Your task to perform on an android device: Go to accessibility settings Image 0: 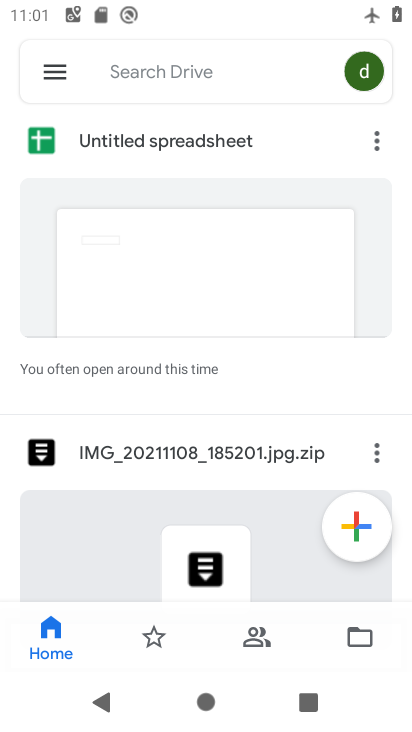
Step 0: press home button
Your task to perform on an android device: Go to accessibility settings Image 1: 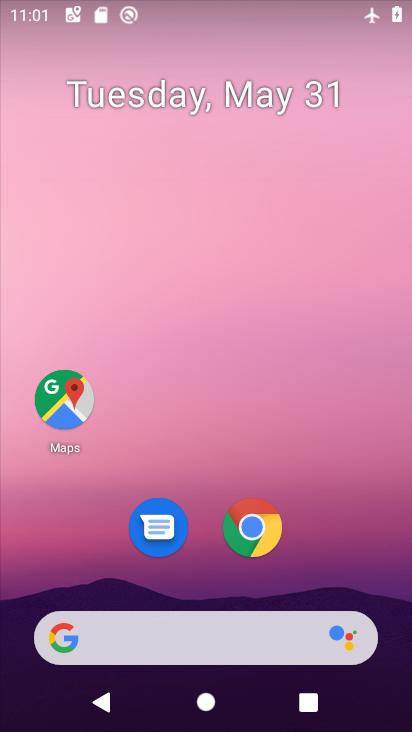
Step 1: drag from (326, 595) to (288, 8)
Your task to perform on an android device: Go to accessibility settings Image 2: 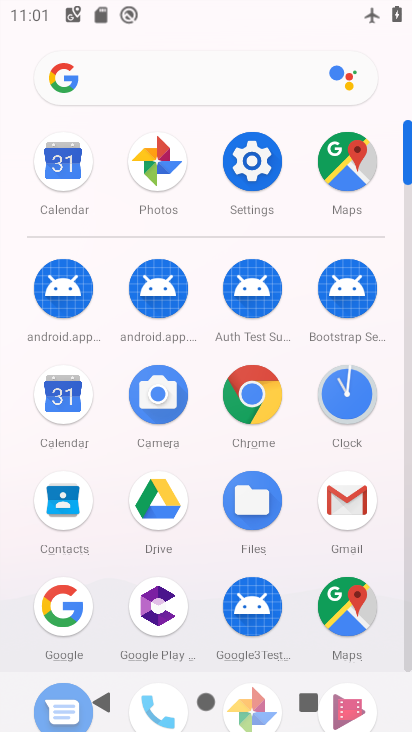
Step 2: click (251, 159)
Your task to perform on an android device: Go to accessibility settings Image 3: 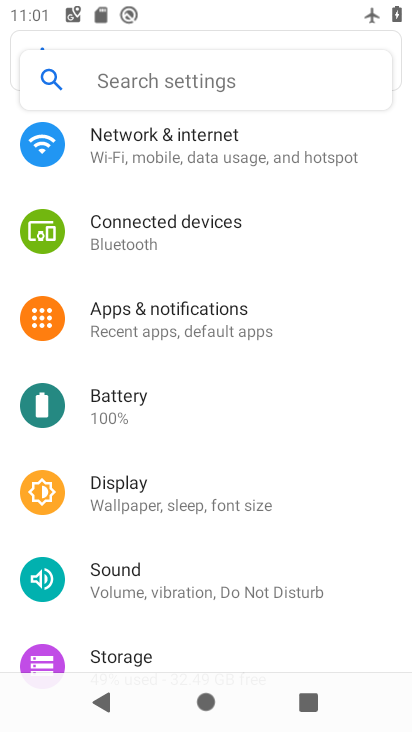
Step 3: drag from (335, 536) to (297, 156)
Your task to perform on an android device: Go to accessibility settings Image 4: 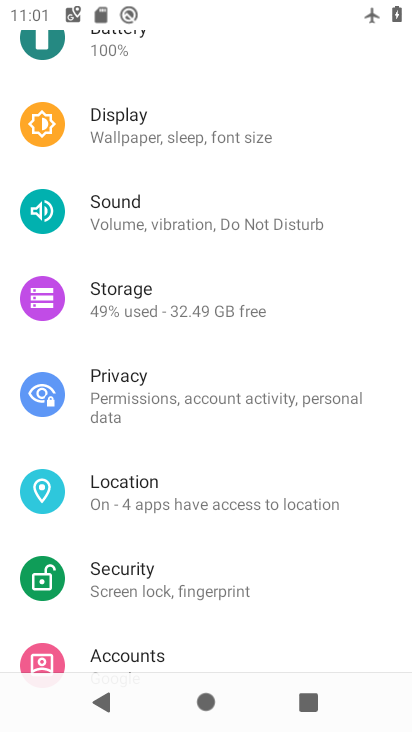
Step 4: drag from (235, 444) to (220, 210)
Your task to perform on an android device: Go to accessibility settings Image 5: 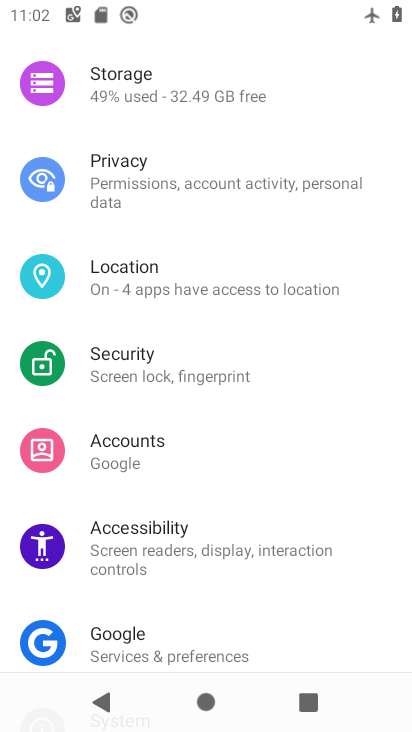
Step 5: click (113, 540)
Your task to perform on an android device: Go to accessibility settings Image 6: 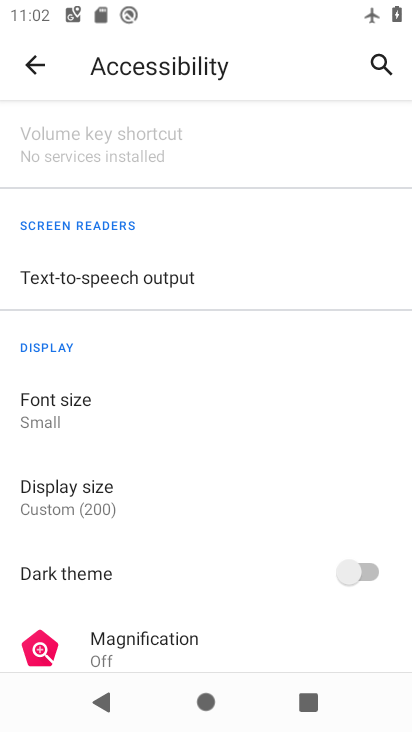
Step 6: task complete